Your task to perform on an android device: Open sound settings Image 0: 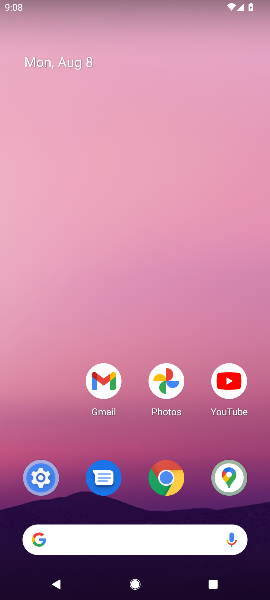
Step 0: click (44, 481)
Your task to perform on an android device: Open sound settings Image 1: 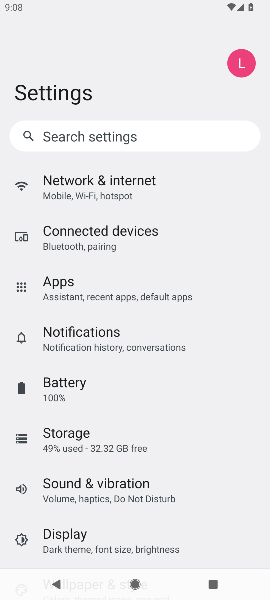
Step 1: drag from (118, 484) to (174, 259)
Your task to perform on an android device: Open sound settings Image 2: 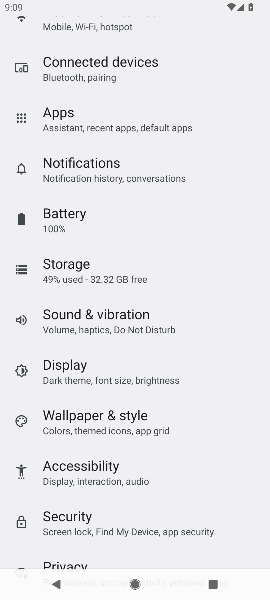
Step 2: click (122, 319)
Your task to perform on an android device: Open sound settings Image 3: 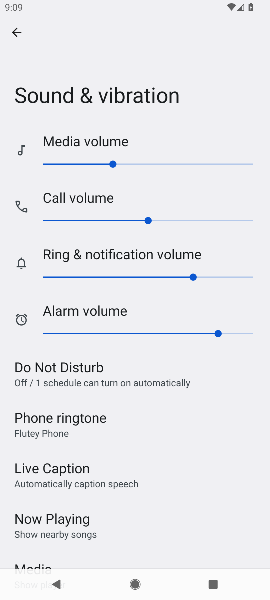
Step 3: task complete